Your task to perform on an android device: Check the weather Image 0: 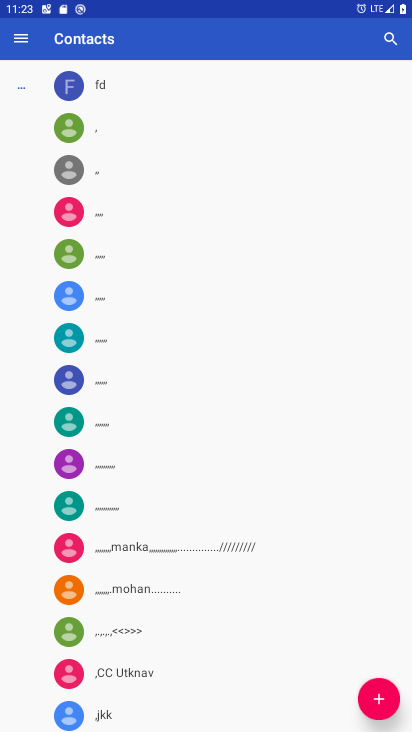
Step 0: press home button
Your task to perform on an android device: Check the weather Image 1: 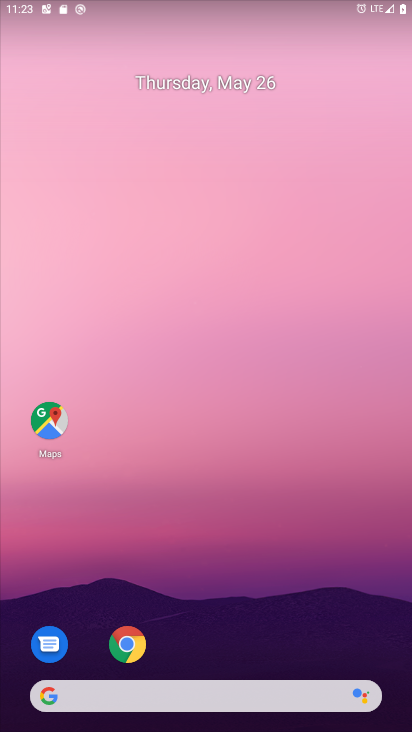
Step 1: click (262, 682)
Your task to perform on an android device: Check the weather Image 2: 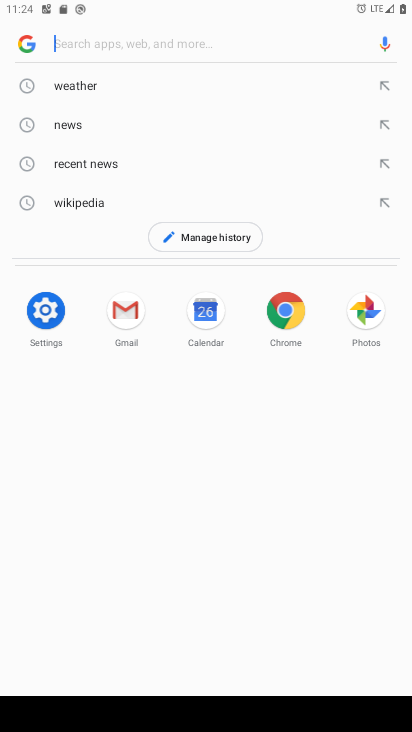
Step 2: click (97, 84)
Your task to perform on an android device: Check the weather Image 3: 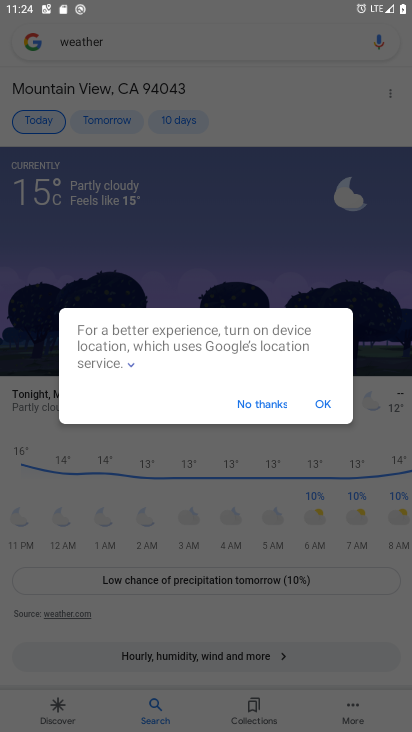
Step 3: click (252, 406)
Your task to perform on an android device: Check the weather Image 4: 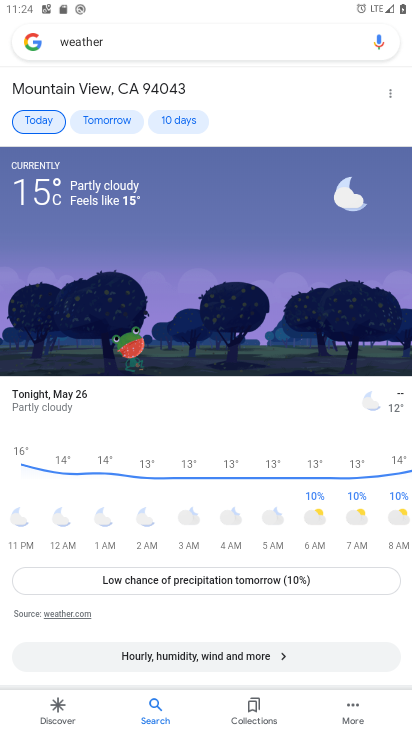
Step 4: task complete